Your task to perform on an android device: turn on sleep mode Image 0: 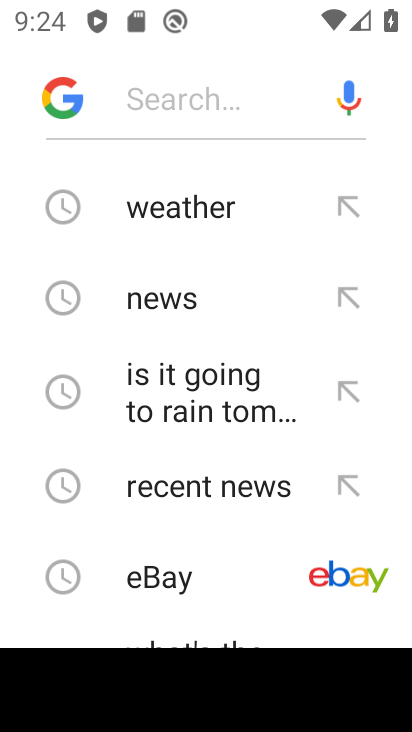
Step 0: press home button
Your task to perform on an android device: turn on sleep mode Image 1: 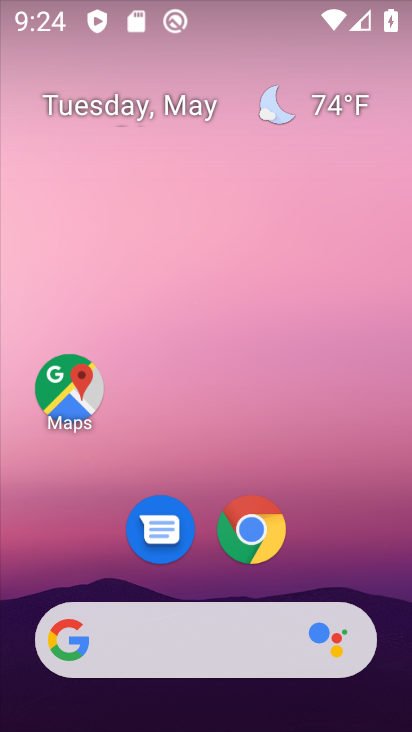
Step 1: drag from (197, 563) to (201, 246)
Your task to perform on an android device: turn on sleep mode Image 2: 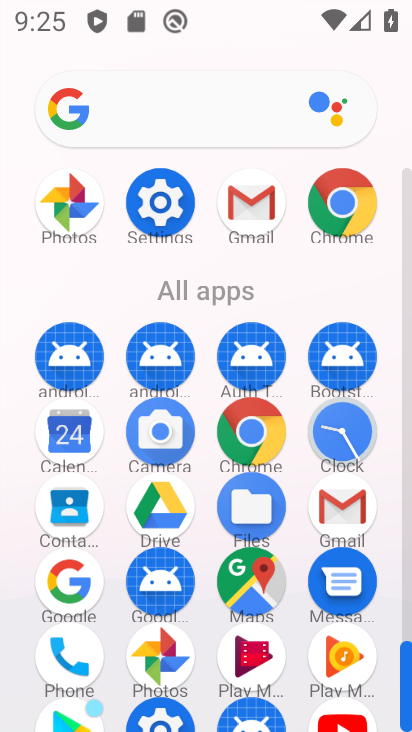
Step 2: click (161, 200)
Your task to perform on an android device: turn on sleep mode Image 3: 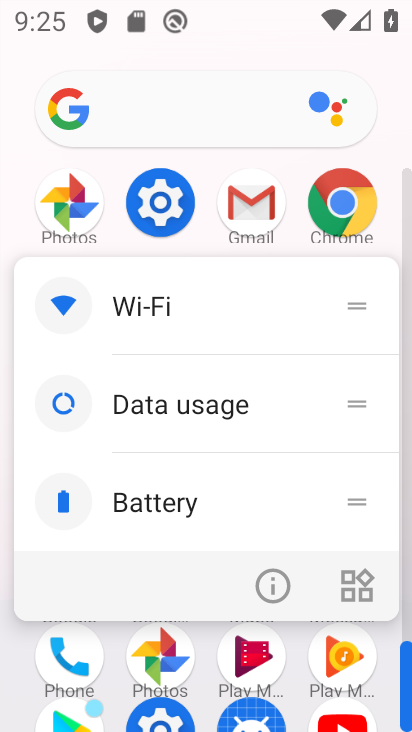
Step 3: click (160, 197)
Your task to perform on an android device: turn on sleep mode Image 4: 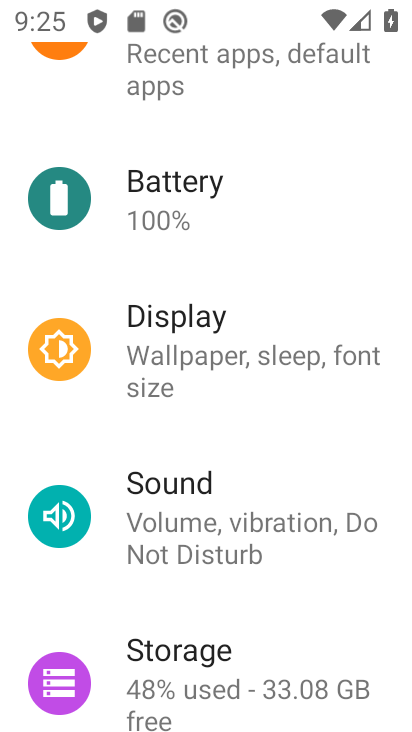
Step 4: click (217, 352)
Your task to perform on an android device: turn on sleep mode Image 5: 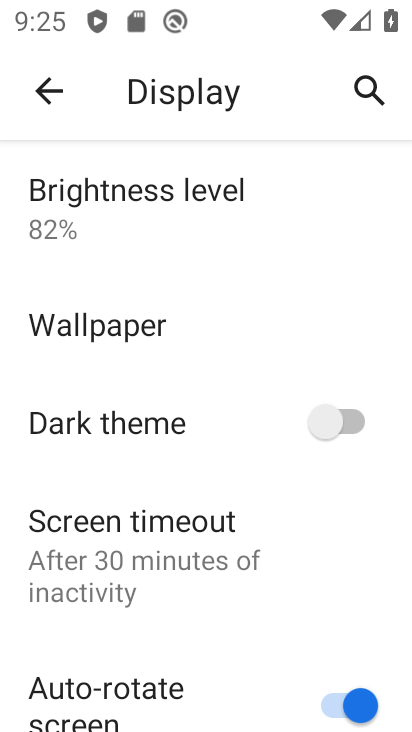
Step 5: task complete